Your task to perform on an android device: Open Google Chrome and click the shortcut for Amazon.com Image 0: 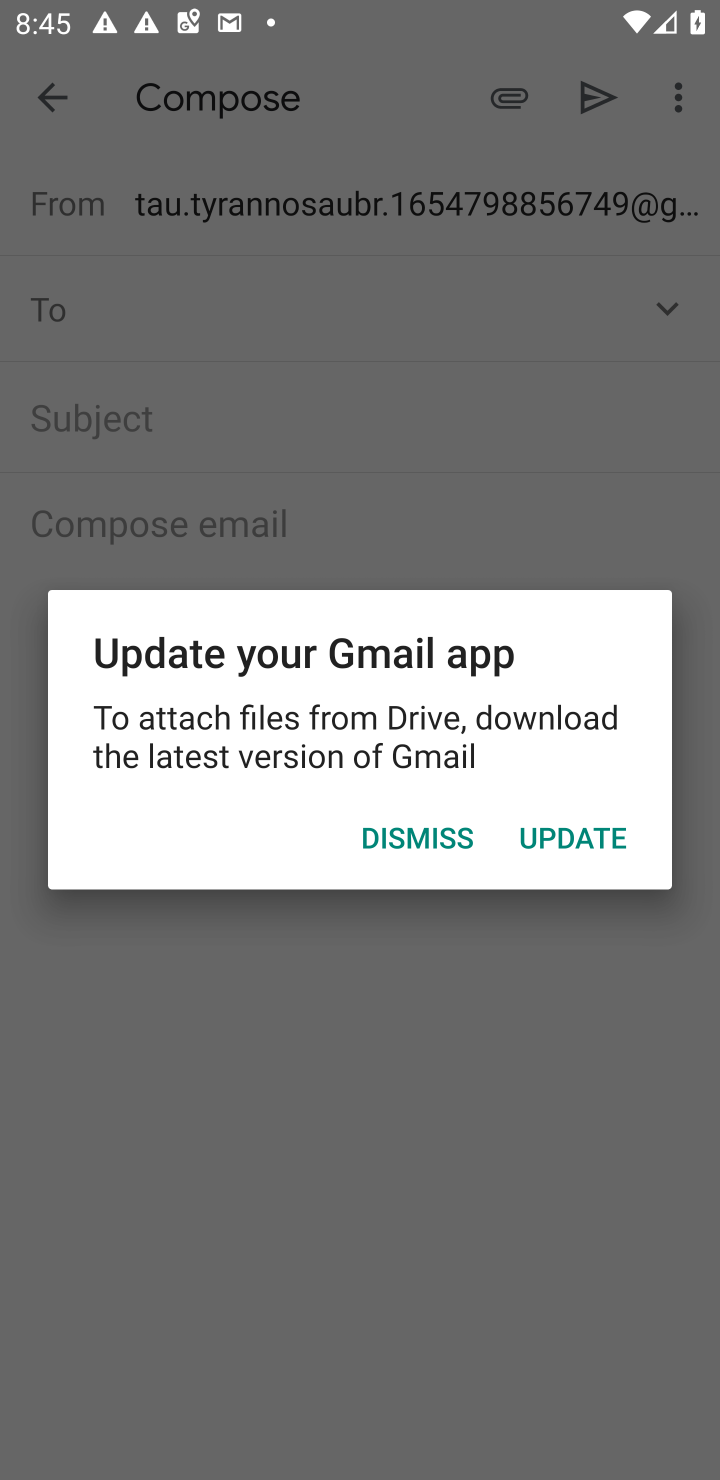
Step 0: press home button
Your task to perform on an android device: Open Google Chrome and click the shortcut for Amazon.com Image 1: 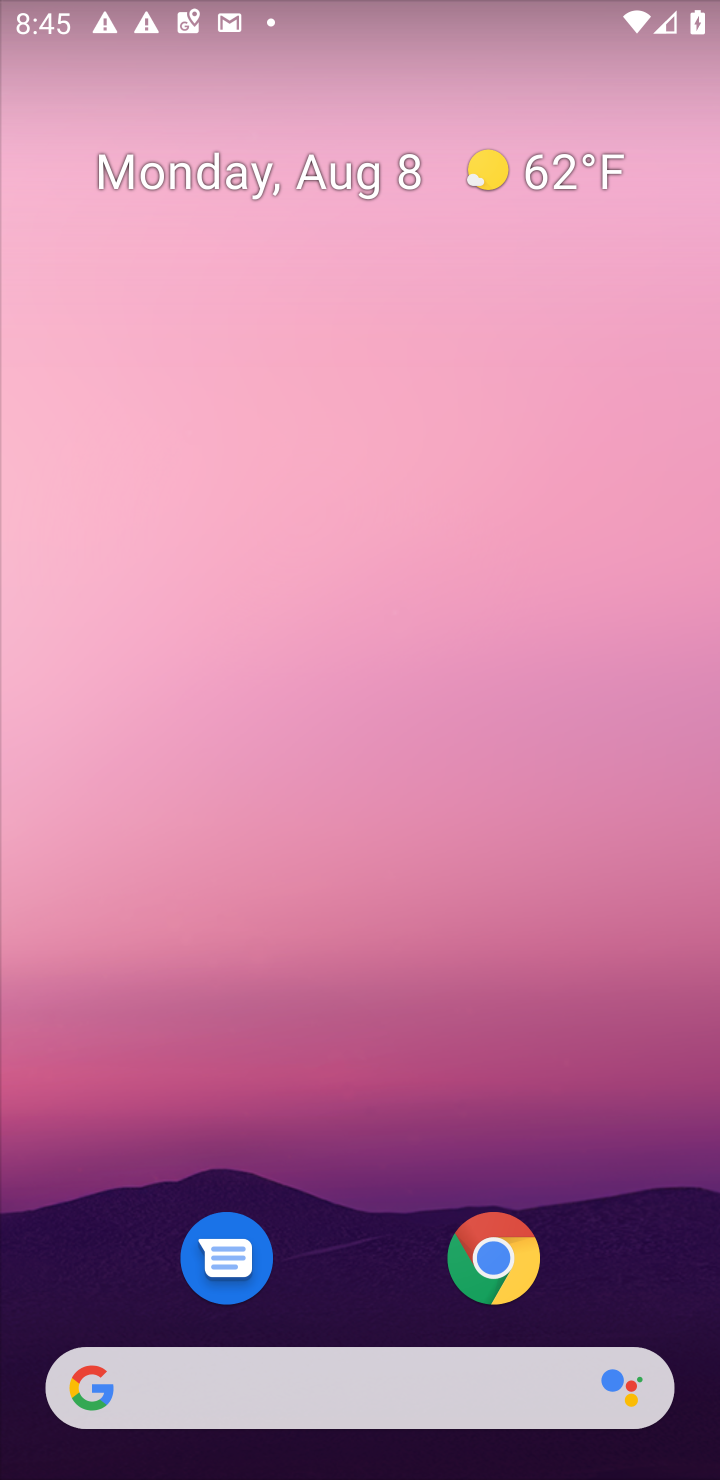
Step 1: click (505, 1252)
Your task to perform on an android device: Open Google Chrome and click the shortcut for Amazon.com Image 2: 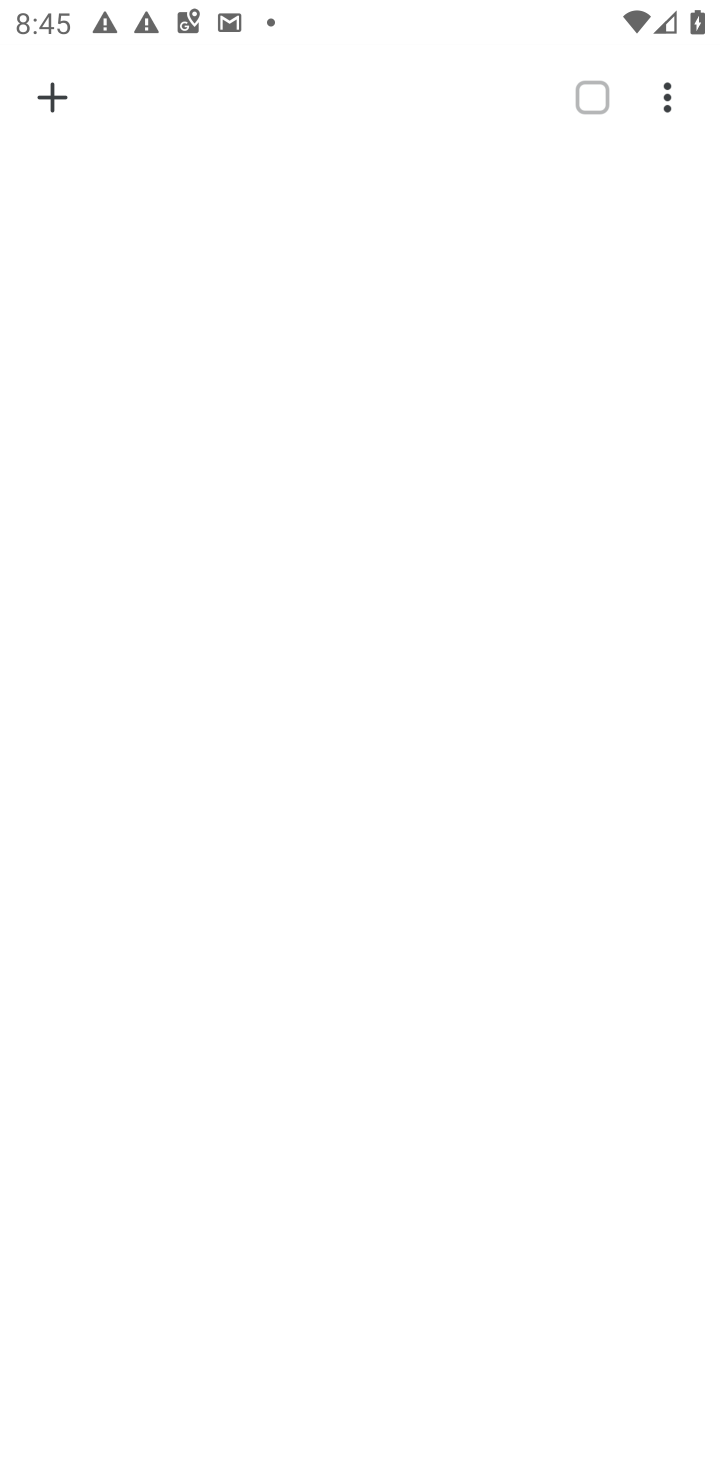
Step 2: click (132, 148)
Your task to perform on an android device: Open Google Chrome and click the shortcut for Amazon.com Image 3: 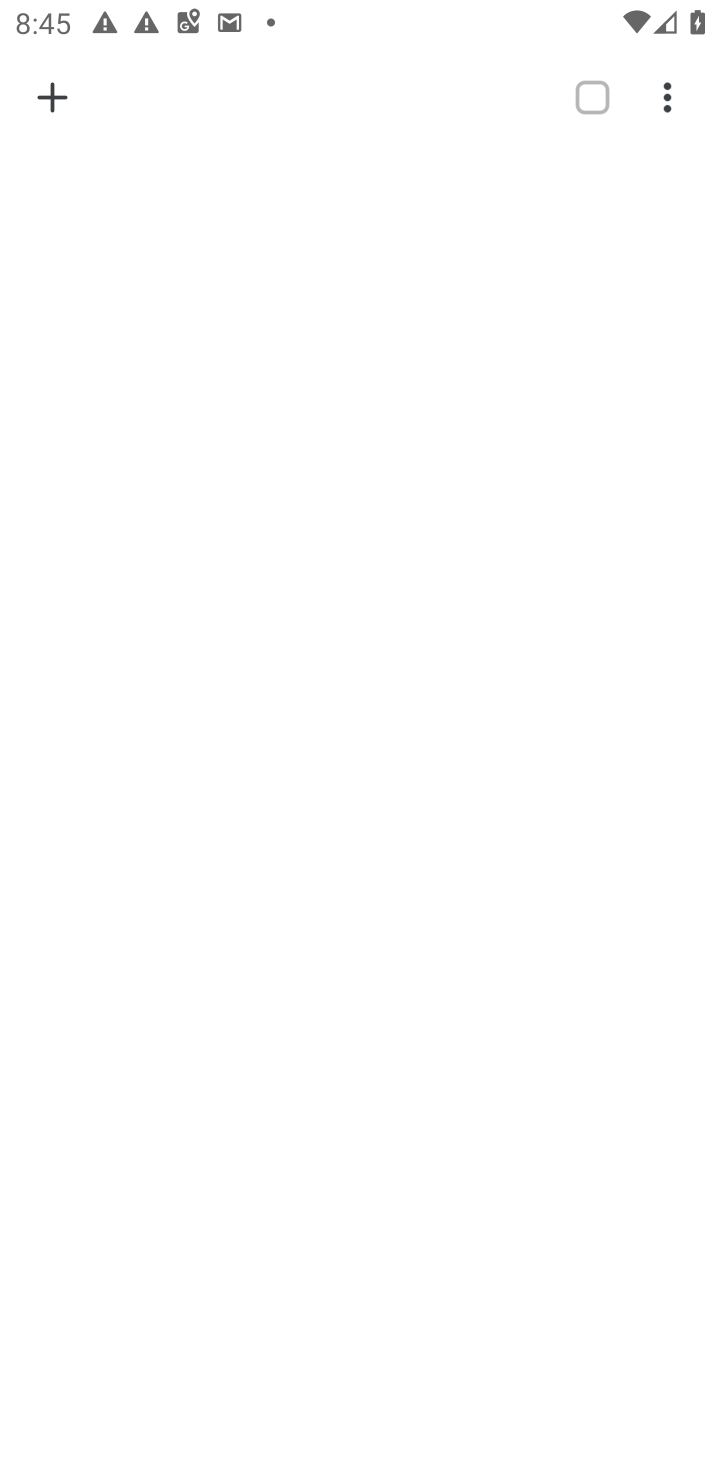
Step 3: click (53, 98)
Your task to perform on an android device: Open Google Chrome and click the shortcut for Amazon.com Image 4: 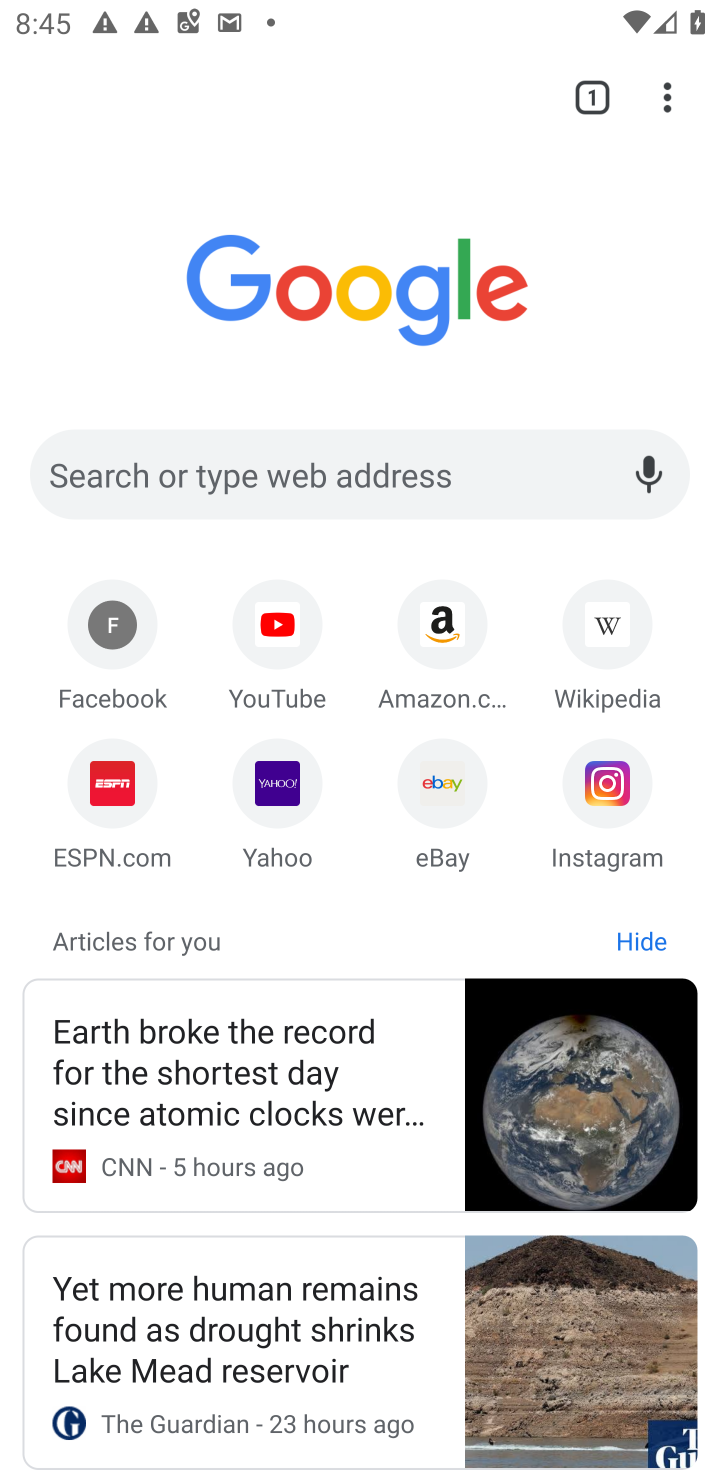
Step 4: click (461, 633)
Your task to perform on an android device: Open Google Chrome and click the shortcut for Amazon.com Image 5: 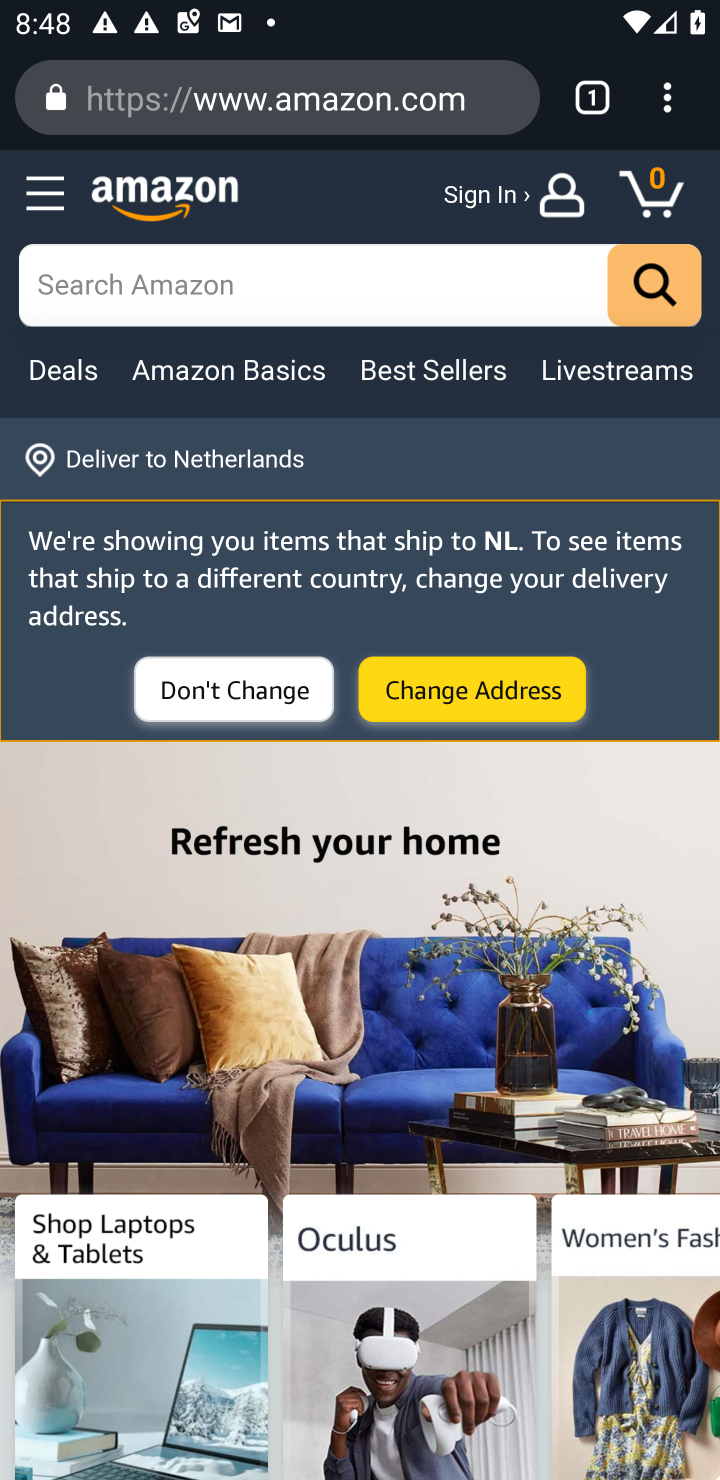
Step 5: task complete